Your task to perform on an android device: Open notification settings Image 0: 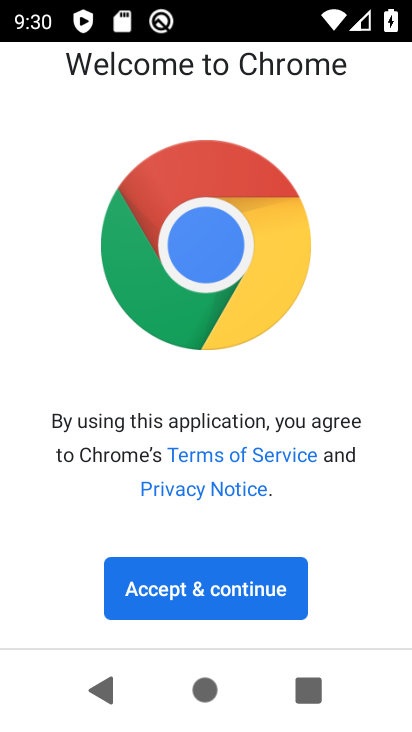
Step 0: press home button
Your task to perform on an android device: Open notification settings Image 1: 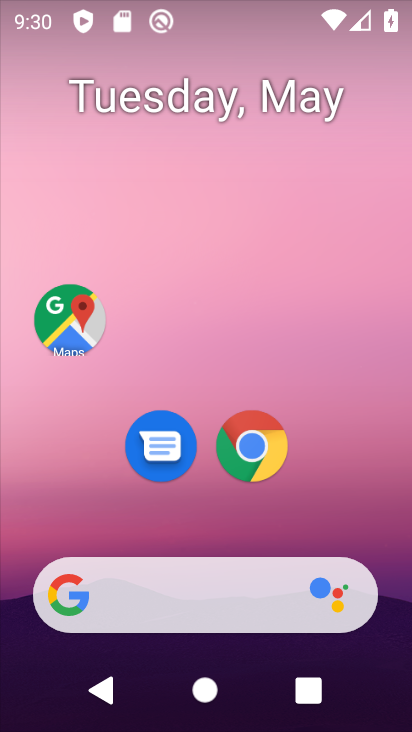
Step 1: drag from (211, 519) to (233, 105)
Your task to perform on an android device: Open notification settings Image 2: 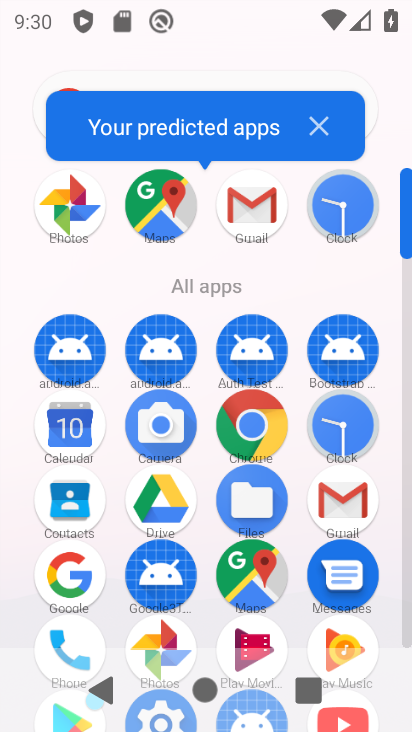
Step 2: drag from (210, 541) to (228, 16)
Your task to perform on an android device: Open notification settings Image 3: 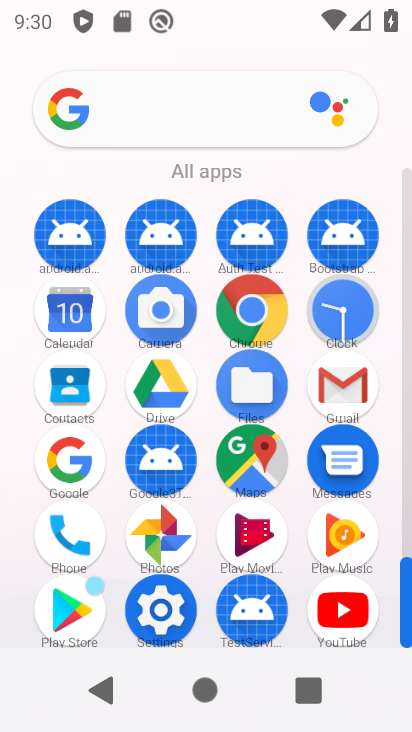
Step 3: click (154, 605)
Your task to perform on an android device: Open notification settings Image 4: 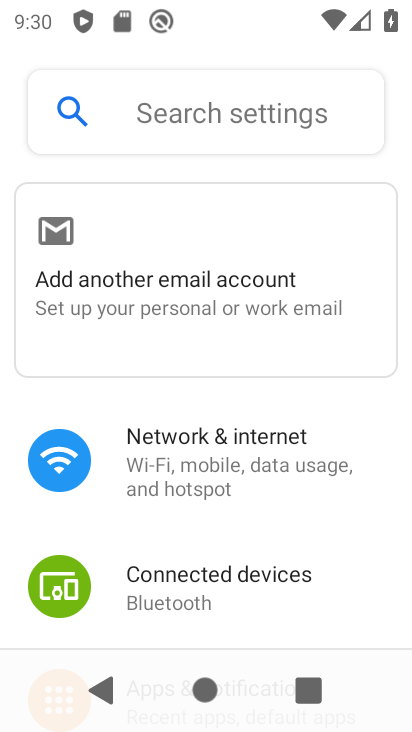
Step 4: drag from (244, 604) to (268, 175)
Your task to perform on an android device: Open notification settings Image 5: 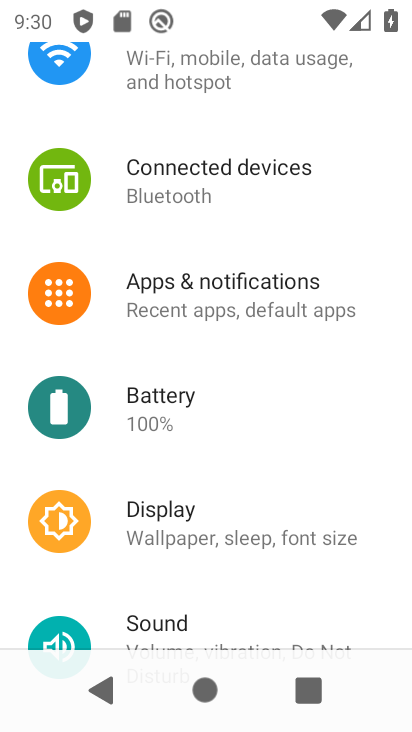
Step 5: click (225, 282)
Your task to perform on an android device: Open notification settings Image 6: 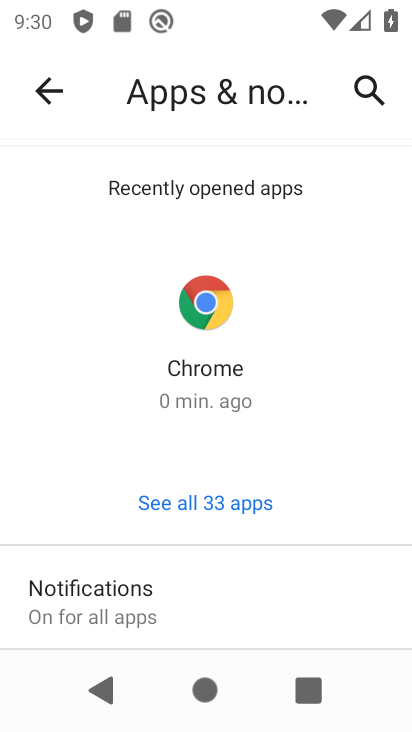
Step 6: click (189, 596)
Your task to perform on an android device: Open notification settings Image 7: 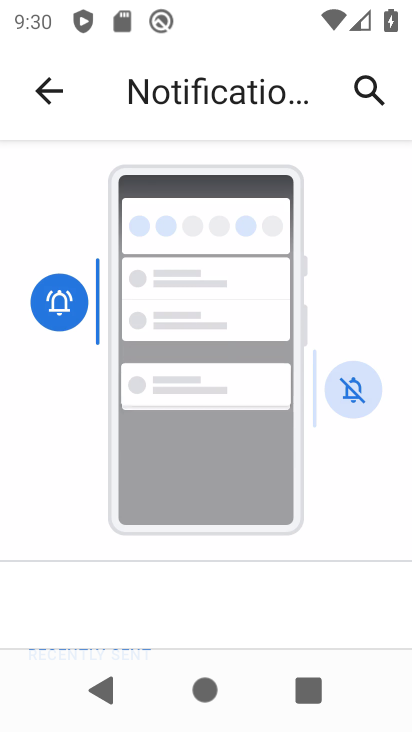
Step 7: drag from (233, 603) to (227, 40)
Your task to perform on an android device: Open notification settings Image 8: 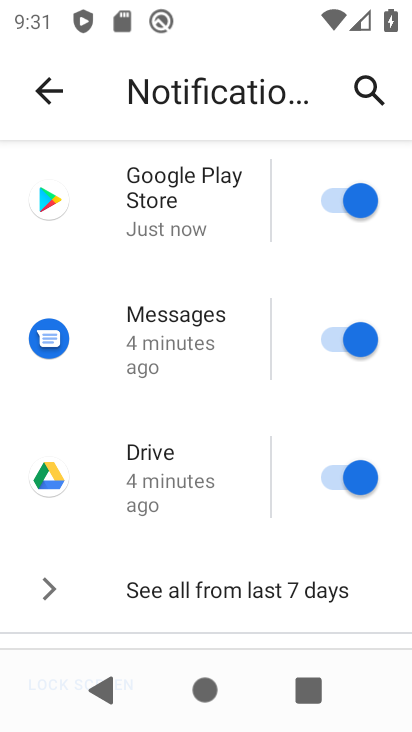
Step 8: drag from (207, 607) to (189, 64)
Your task to perform on an android device: Open notification settings Image 9: 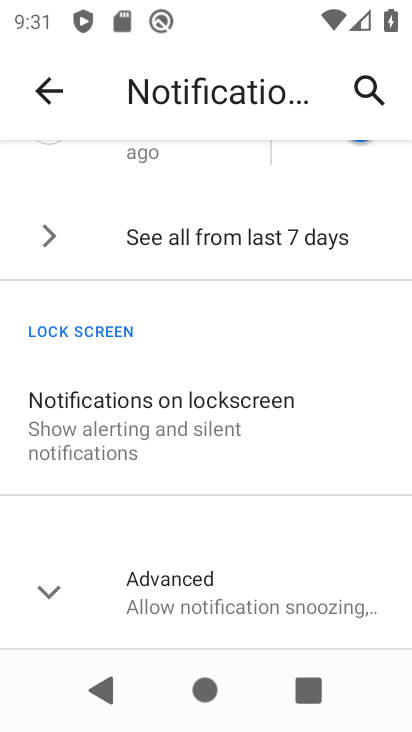
Step 9: click (50, 584)
Your task to perform on an android device: Open notification settings Image 10: 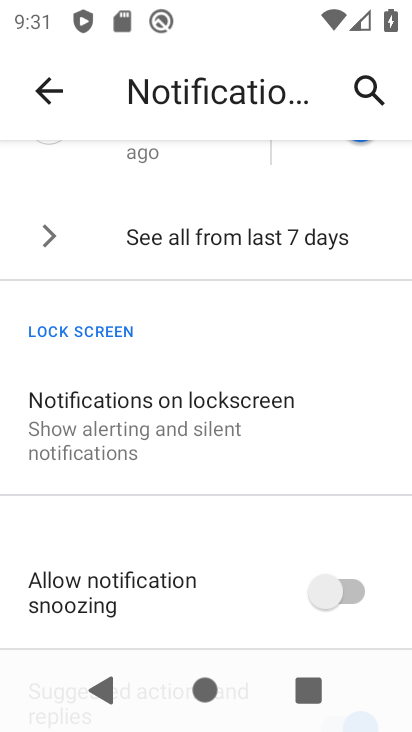
Step 10: task complete